Your task to perform on an android device: remove spam from my inbox in the gmail app Image 0: 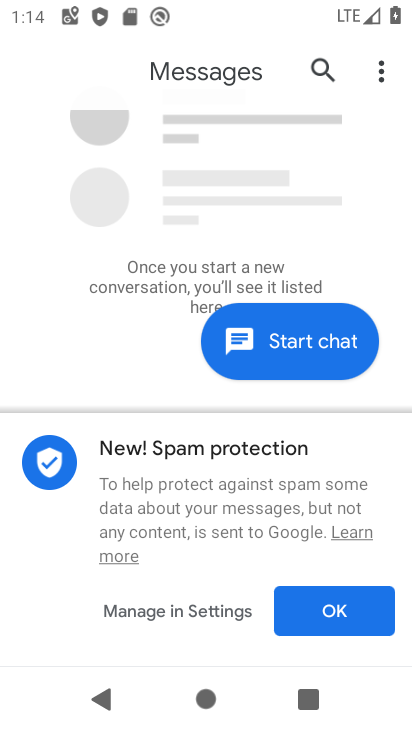
Step 0: press home button
Your task to perform on an android device: remove spam from my inbox in the gmail app Image 1: 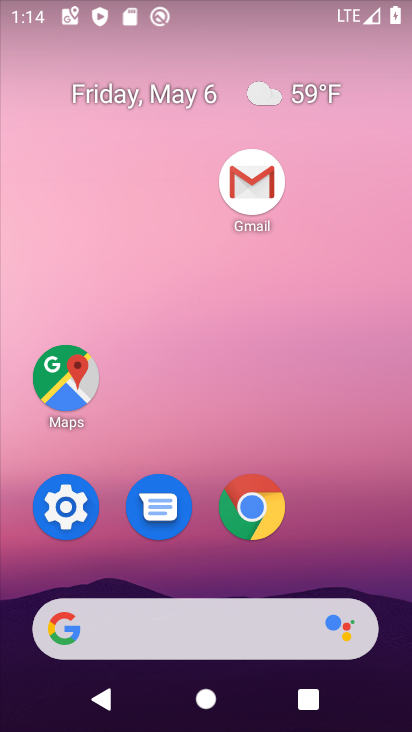
Step 1: click (258, 173)
Your task to perform on an android device: remove spam from my inbox in the gmail app Image 2: 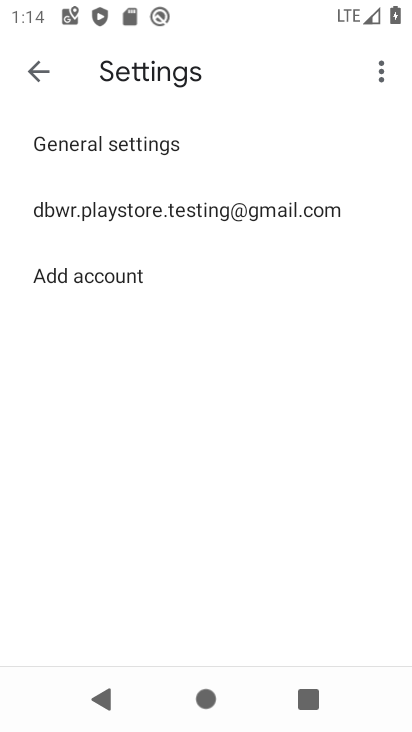
Step 2: click (77, 136)
Your task to perform on an android device: remove spam from my inbox in the gmail app Image 3: 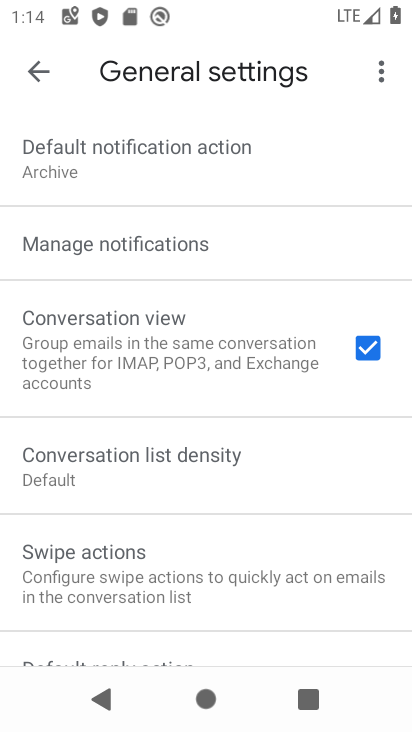
Step 3: click (38, 67)
Your task to perform on an android device: remove spam from my inbox in the gmail app Image 4: 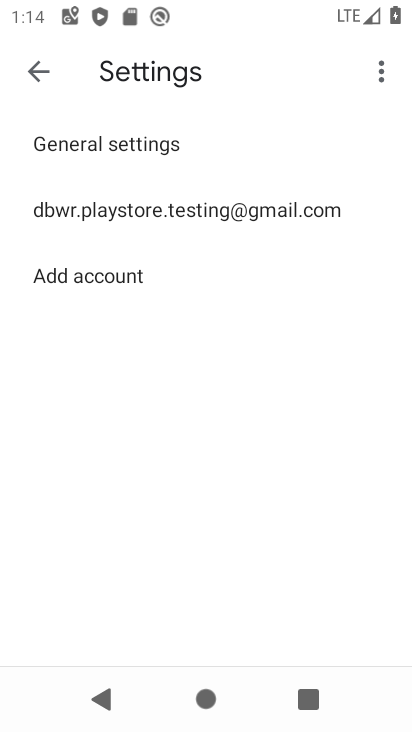
Step 4: click (38, 67)
Your task to perform on an android device: remove spam from my inbox in the gmail app Image 5: 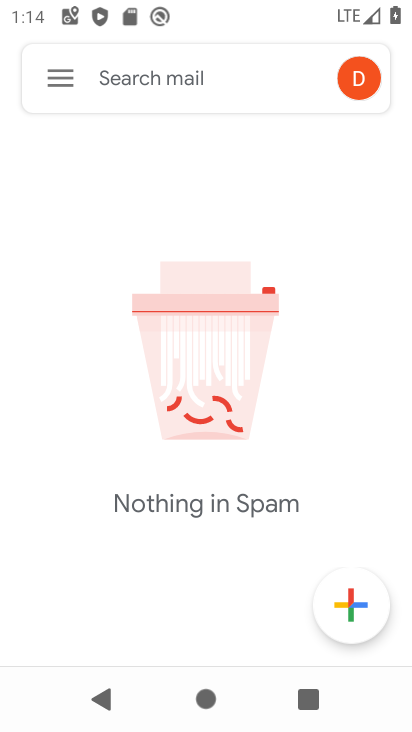
Step 5: click (55, 82)
Your task to perform on an android device: remove spam from my inbox in the gmail app Image 6: 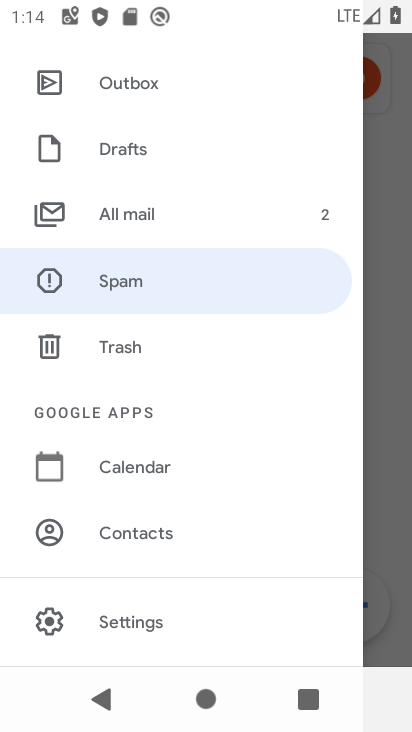
Step 6: click (126, 285)
Your task to perform on an android device: remove spam from my inbox in the gmail app Image 7: 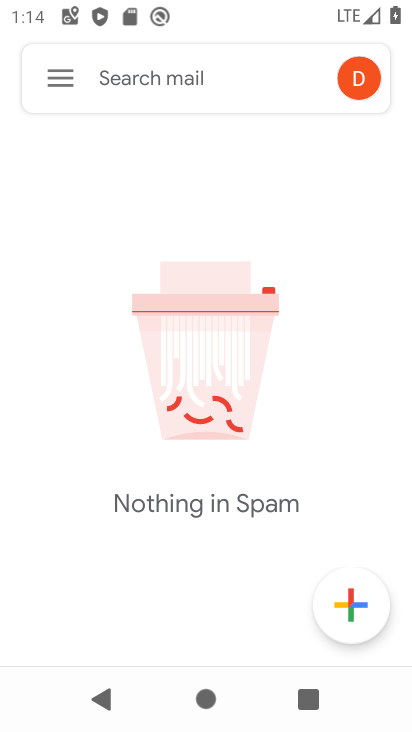
Step 7: task complete